Your task to perform on an android device: Open calendar and show me the second week of next month Image 0: 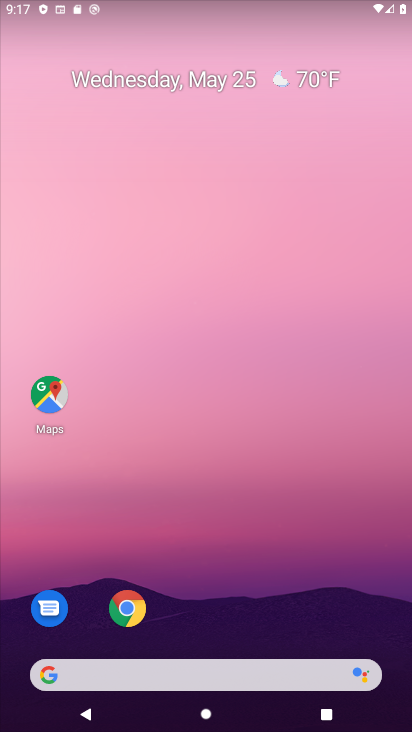
Step 0: drag from (272, 512) to (153, 1)
Your task to perform on an android device: Open calendar and show me the second week of next month Image 1: 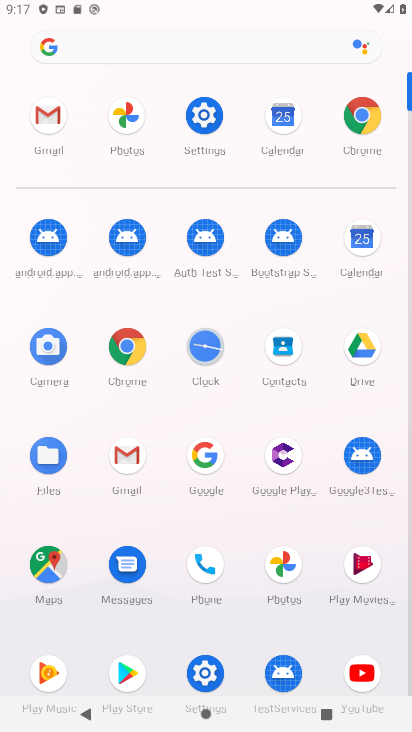
Step 1: click (363, 230)
Your task to perform on an android device: Open calendar and show me the second week of next month Image 2: 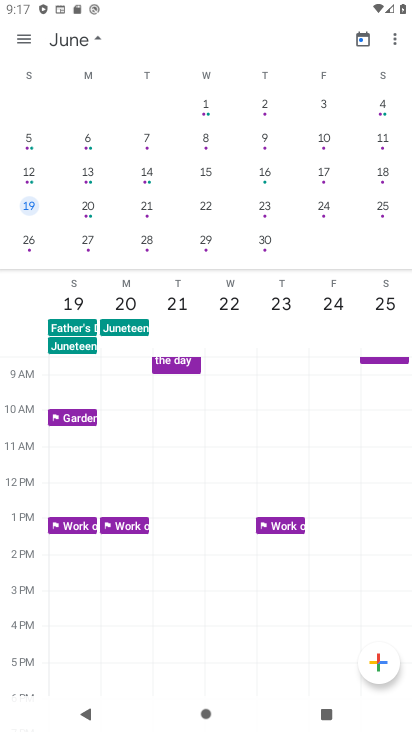
Step 2: click (33, 168)
Your task to perform on an android device: Open calendar and show me the second week of next month Image 3: 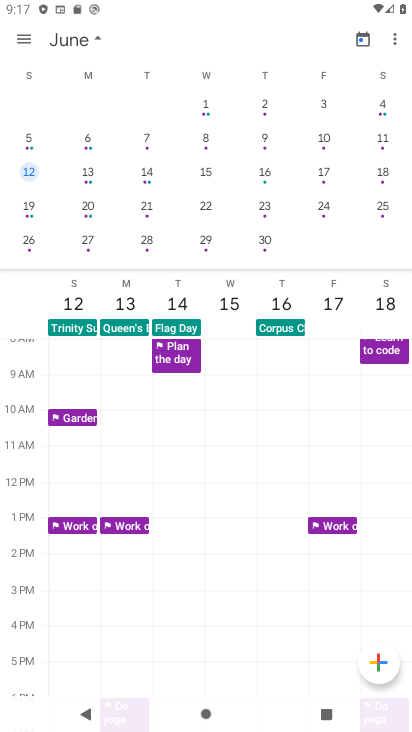
Step 3: click (35, 134)
Your task to perform on an android device: Open calendar and show me the second week of next month Image 4: 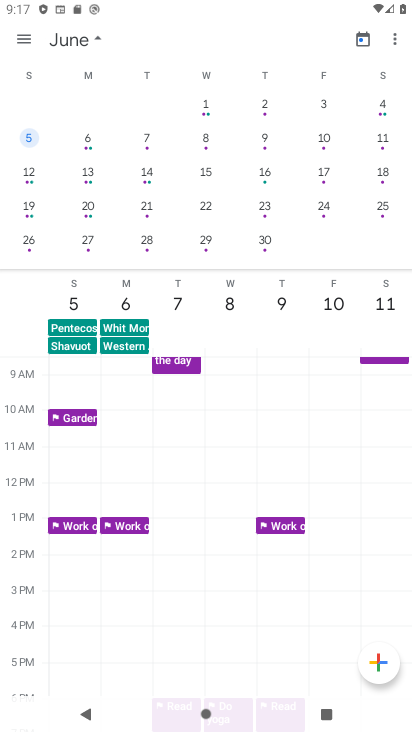
Step 4: task complete